Your task to perform on an android device: Go to Reddit.com Image 0: 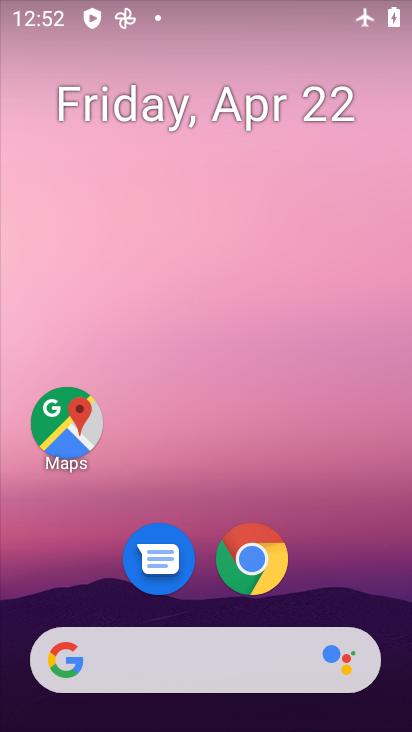
Step 0: drag from (368, 574) to (403, 217)
Your task to perform on an android device: Go to Reddit.com Image 1: 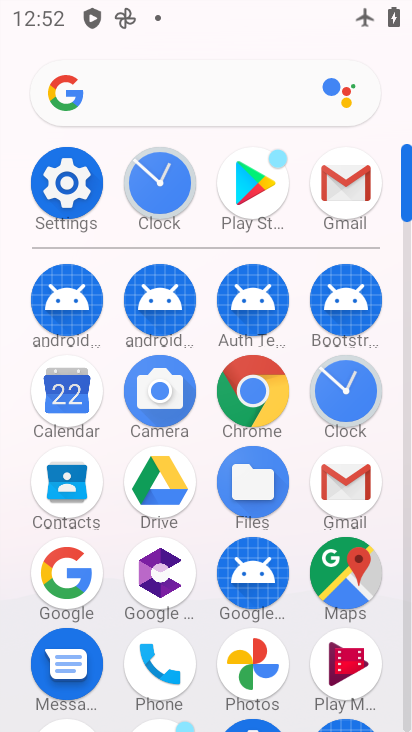
Step 1: click (253, 397)
Your task to perform on an android device: Go to Reddit.com Image 2: 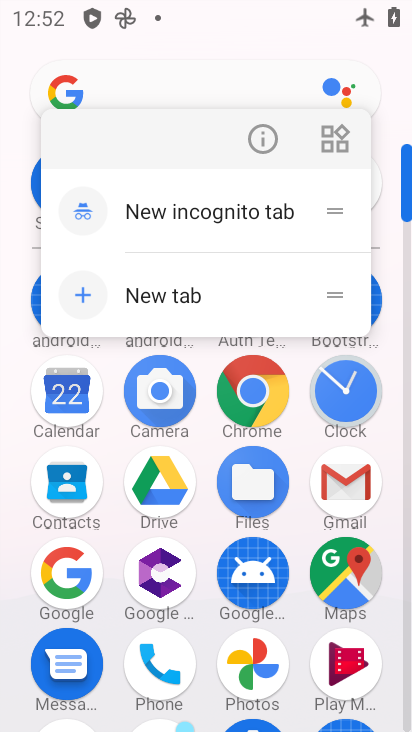
Step 2: click (260, 387)
Your task to perform on an android device: Go to Reddit.com Image 3: 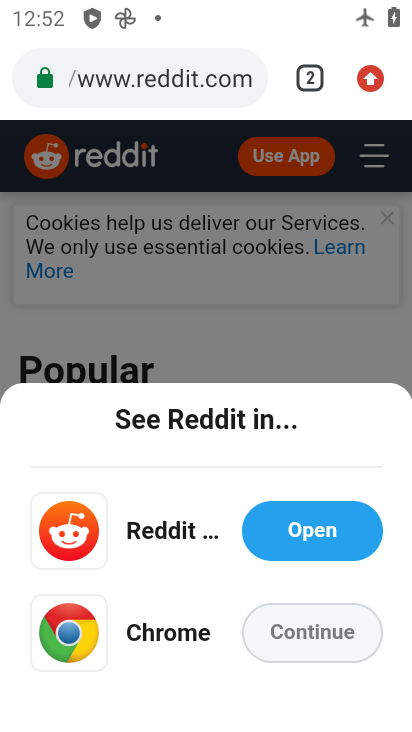
Step 3: click (286, 639)
Your task to perform on an android device: Go to Reddit.com Image 4: 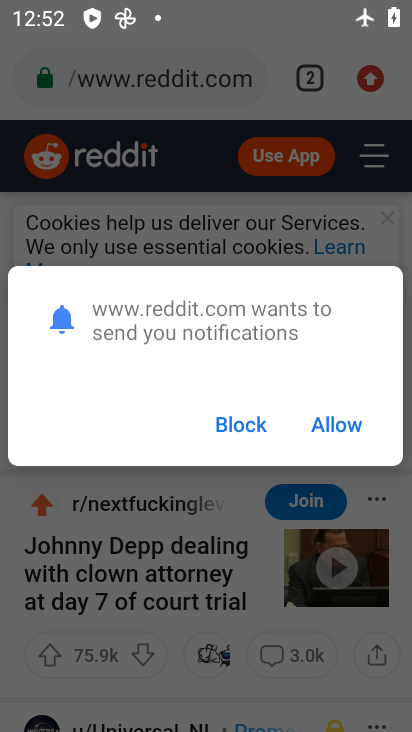
Step 4: click (248, 429)
Your task to perform on an android device: Go to Reddit.com Image 5: 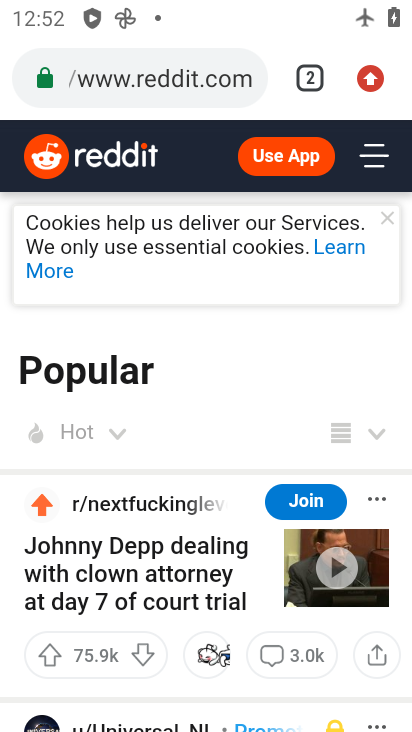
Step 5: task complete